Your task to perform on an android device: add a label to a message in the gmail app Image 0: 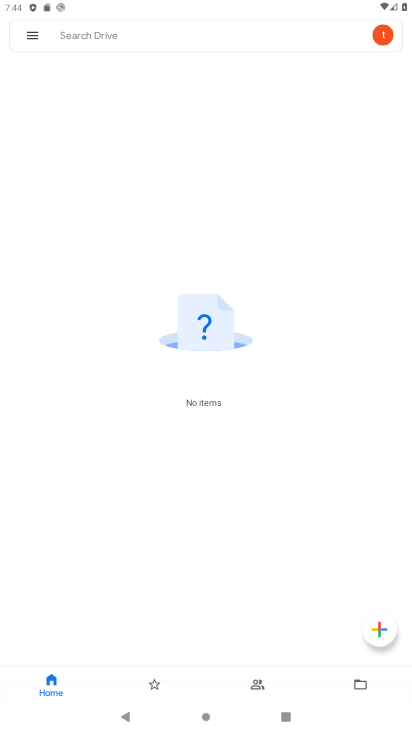
Step 0: press home button
Your task to perform on an android device: add a label to a message in the gmail app Image 1: 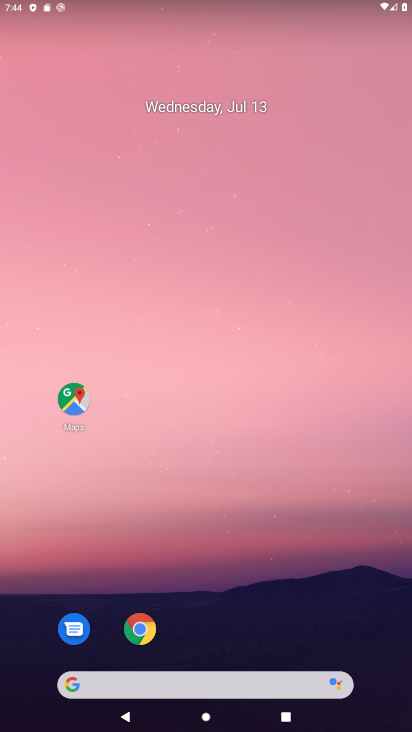
Step 1: drag from (21, 699) to (162, 213)
Your task to perform on an android device: add a label to a message in the gmail app Image 2: 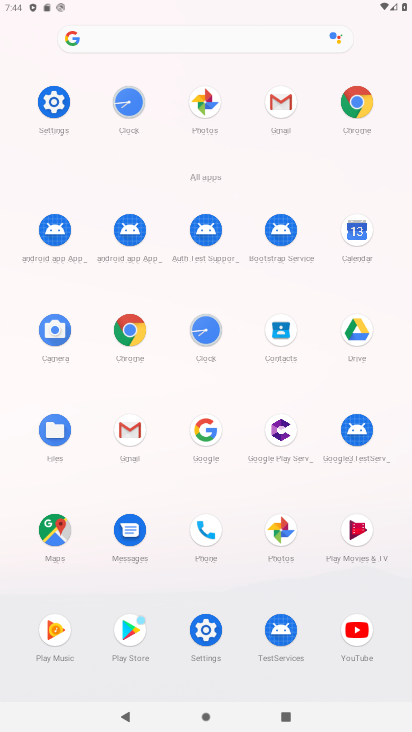
Step 2: click (137, 432)
Your task to perform on an android device: add a label to a message in the gmail app Image 3: 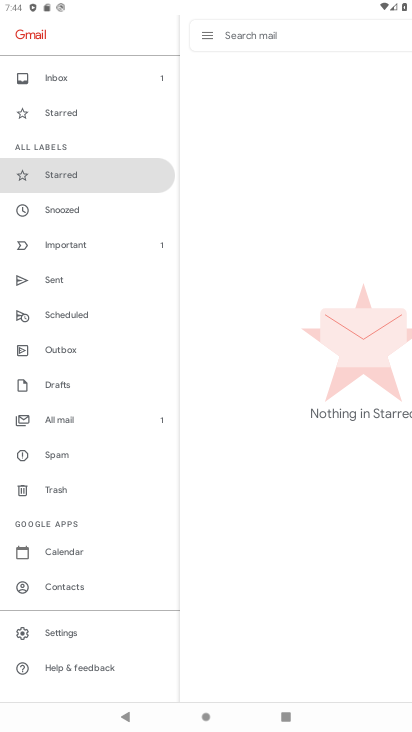
Step 3: click (83, 78)
Your task to perform on an android device: add a label to a message in the gmail app Image 4: 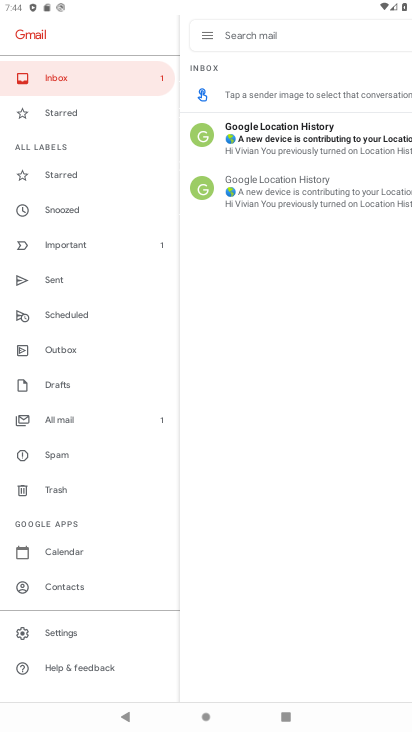
Step 4: task complete